Your task to perform on an android device: toggle notification dots Image 0: 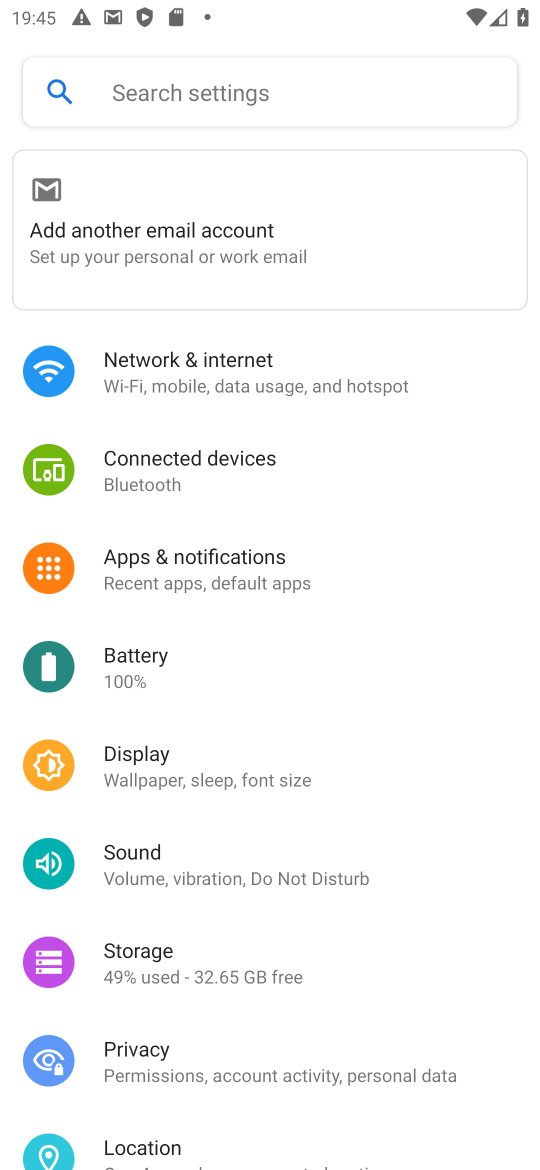
Step 0: click (257, 565)
Your task to perform on an android device: toggle notification dots Image 1: 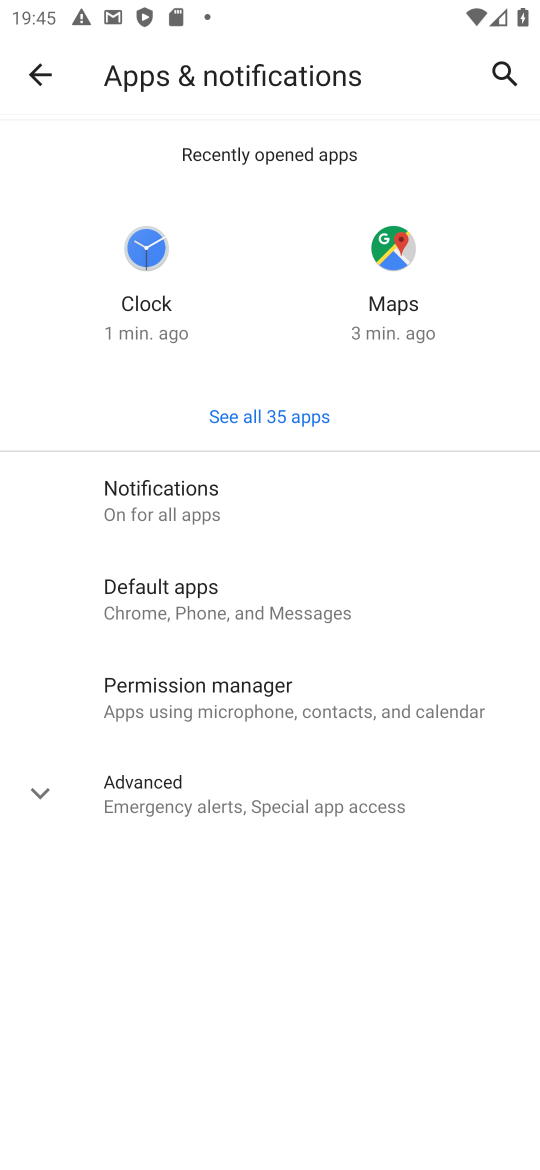
Step 1: click (129, 494)
Your task to perform on an android device: toggle notification dots Image 2: 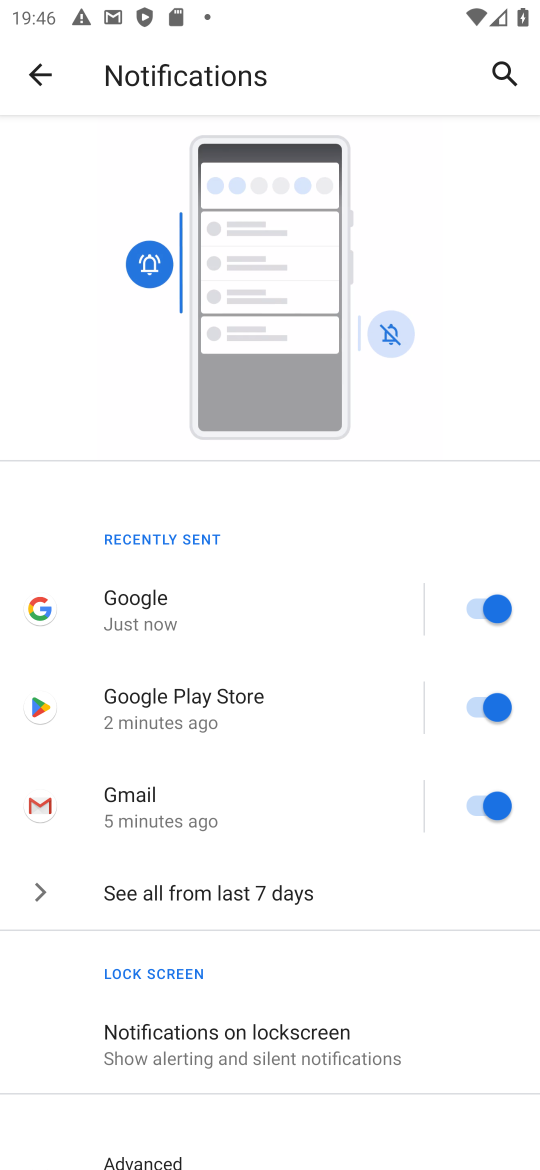
Step 2: click (279, 383)
Your task to perform on an android device: toggle notification dots Image 3: 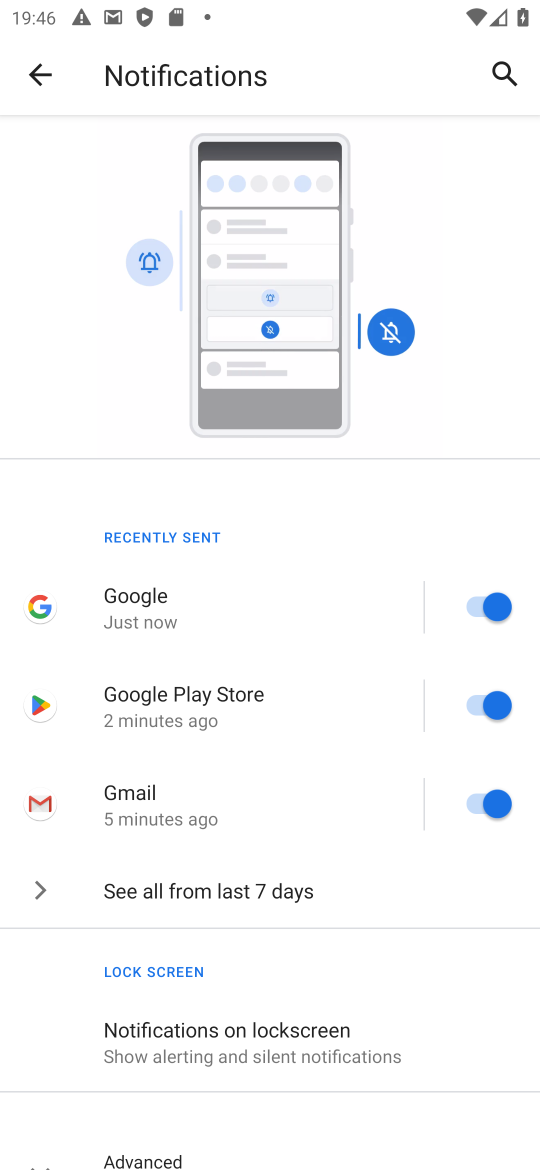
Step 3: drag from (331, 904) to (389, 297)
Your task to perform on an android device: toggle notification dots Image 4: 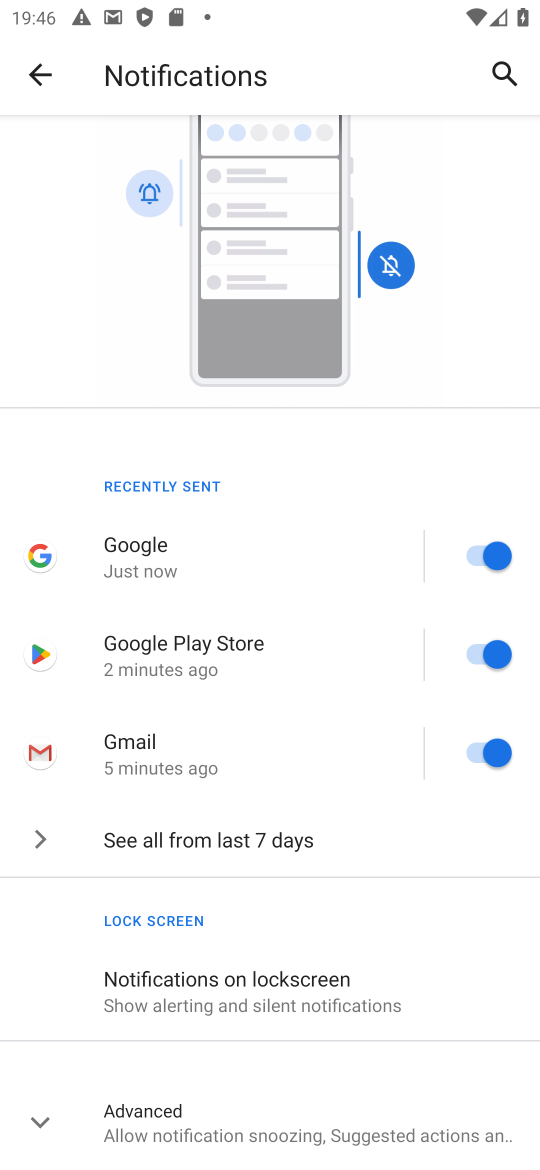
Step 4: click (169, 1095)
Your task to perform on an android device: toggle notification dots Image 5: 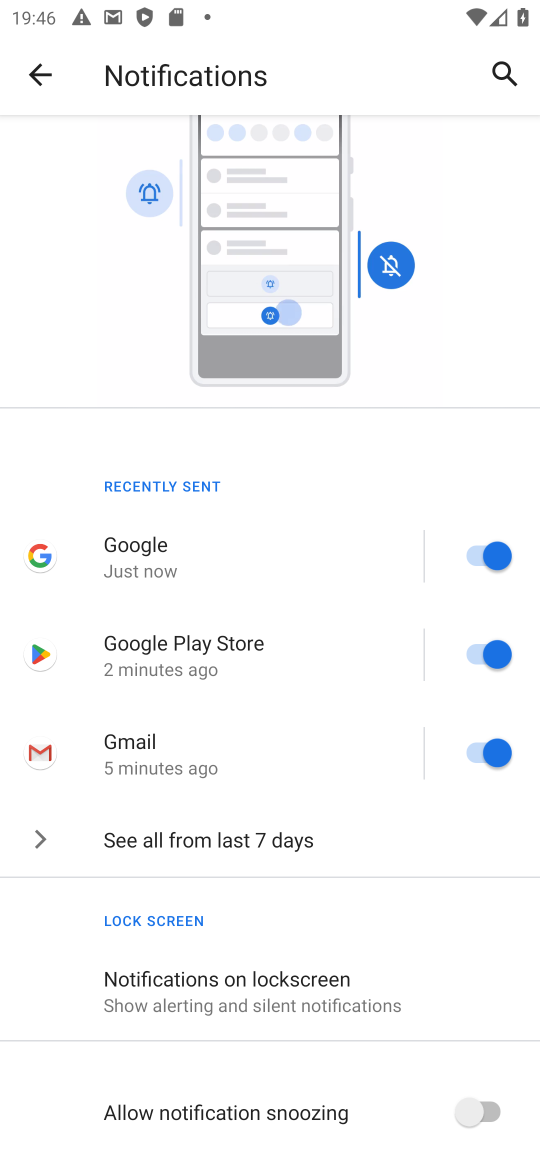
Step 5: drag from (284, 935) to (511, 270)
Your task to perform on an android device: toggle notification dots Image 6: 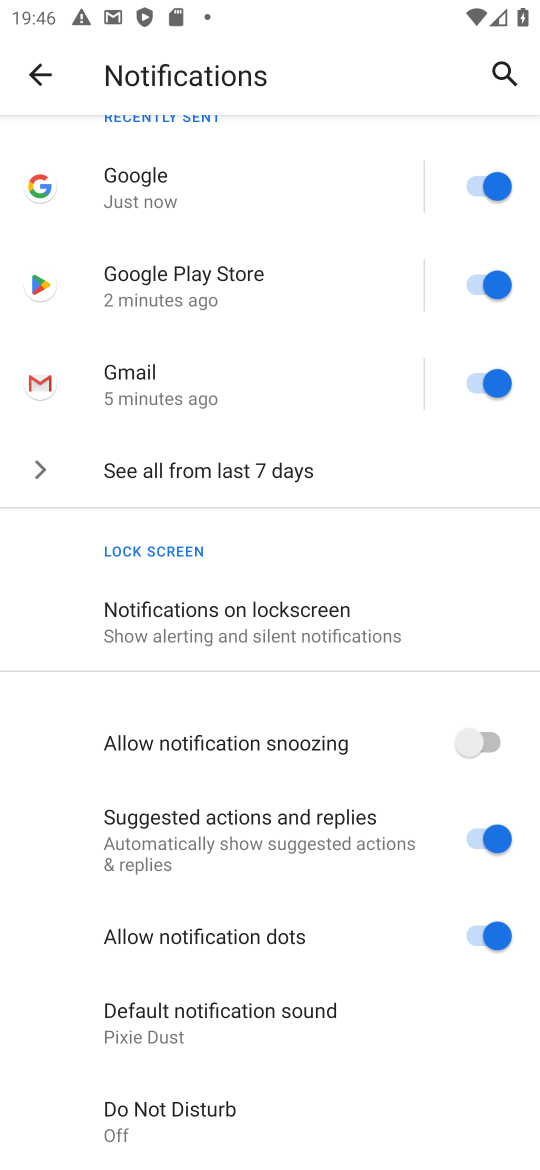
Step 6: click (476, 929)
Your task to perform on an android device: toggle notification dots Image 7: 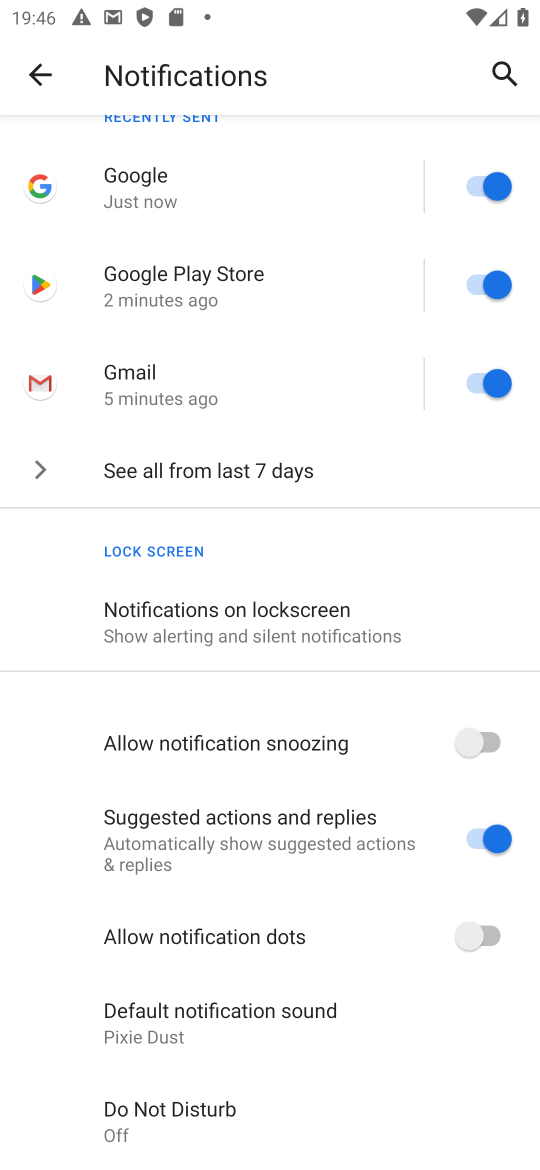
Step 7: task complete